Your task to perform on an android device: What is the news today? Image 0: 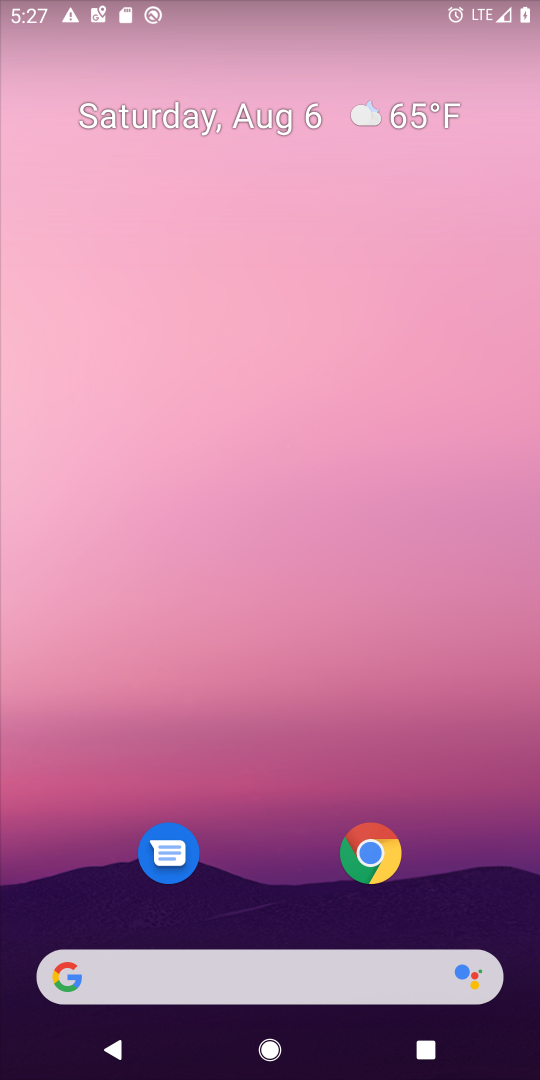
Step 0: click (255, 974)
Your task to perform on an android device: What is the news today? Image 1: 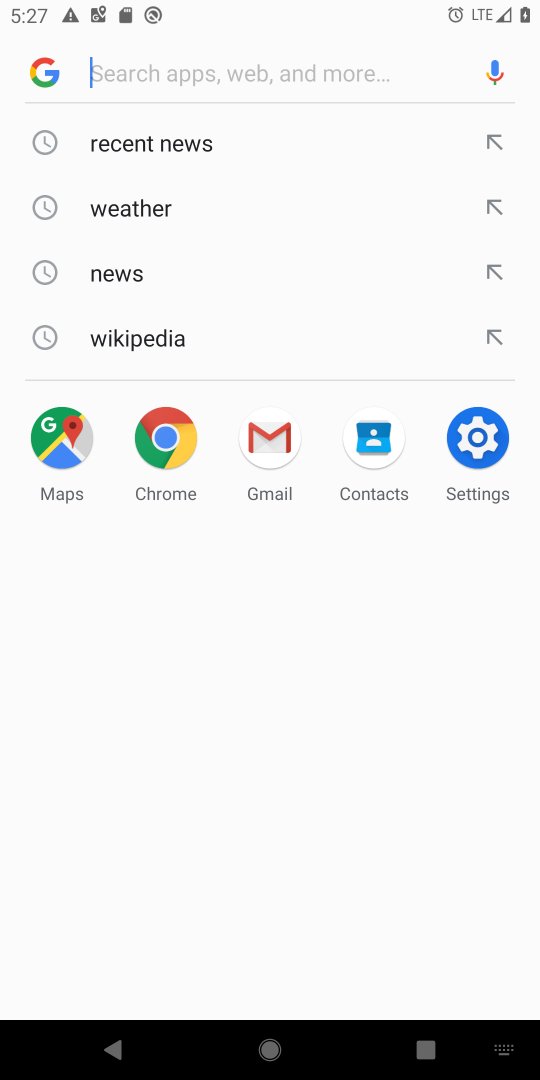
Step 1: click (148, 276)
Your task to perform on an android device: What is the news today? Image 2: 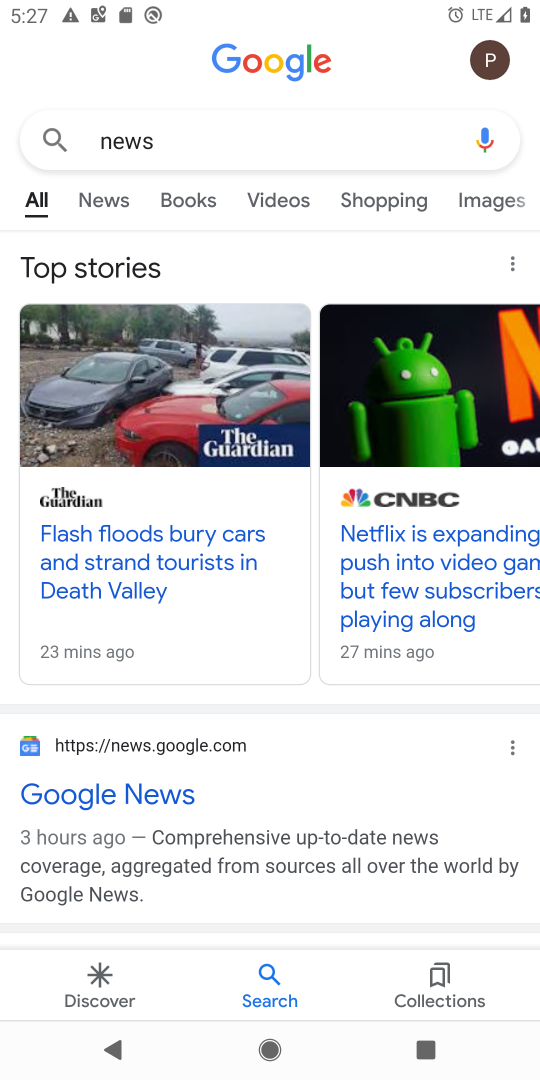
Step 2: task complete